Your task to perform on an android device: Go to sound settings Image 0: 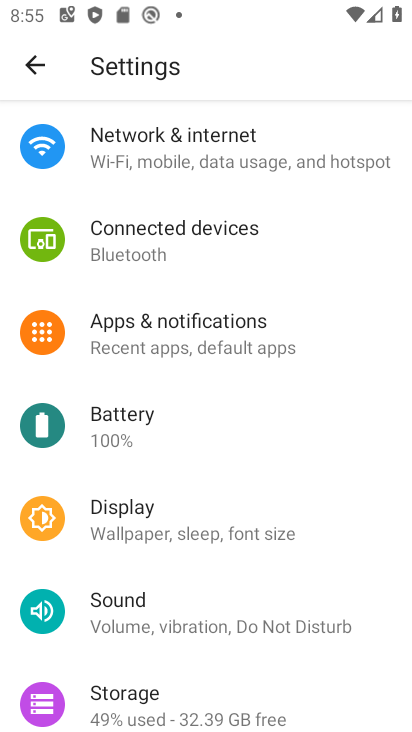
Step 0: click (240, 623)
Your task to perform on an android device: Go to sound settings Image 1: 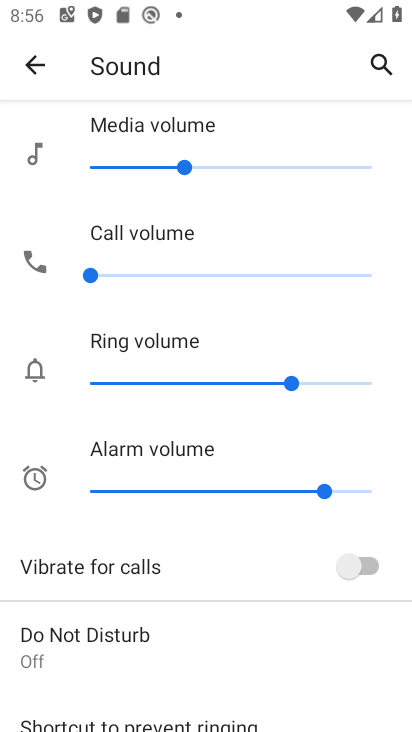
Step 1: task complete